Your task to perform on an android device: Play the last video I watched on Youtube Image 0: 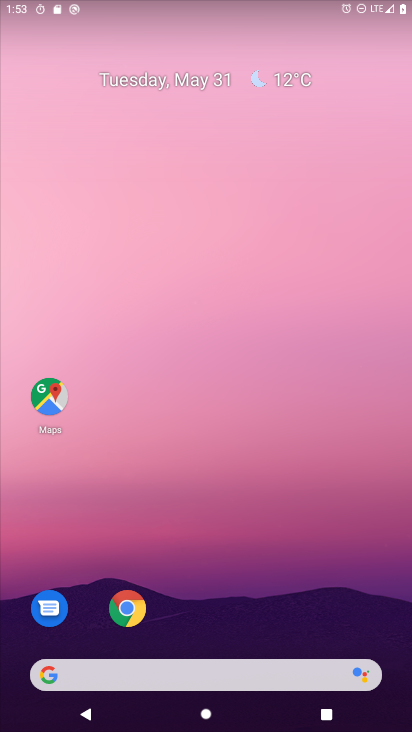
Step 0: drag from (279, 645) to (276, 3)
Your task to perform on an android device: Play the last video I watched on Youtube Image 1: 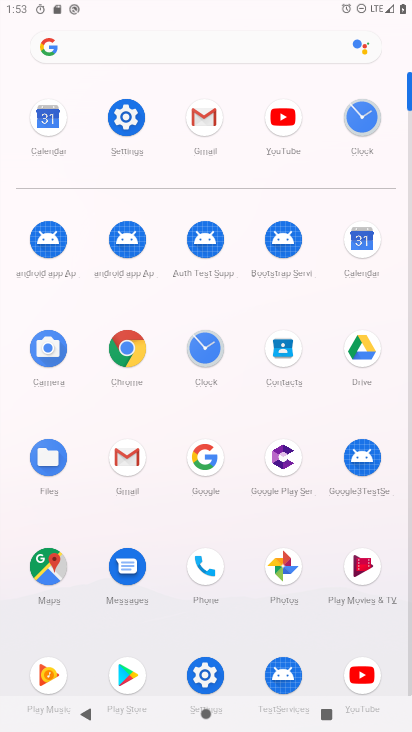
Step 1: click (364, 673)
Your task to perform on an android device: Play the last video I watched on Youtube Image 2: 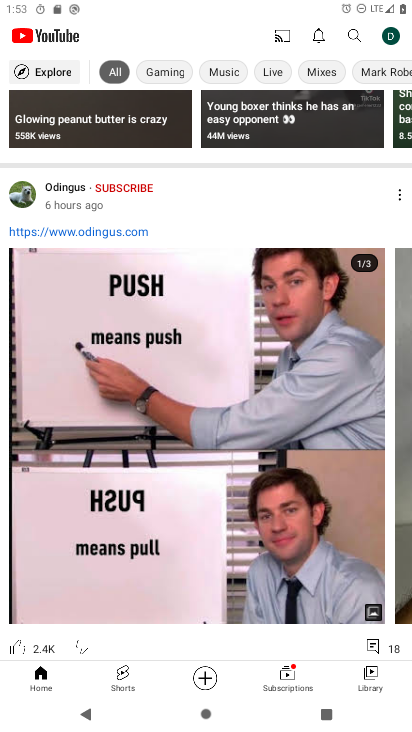
Step 2: click (393, 690)
Your task to perform on an android device: Play the last video I watched on Youtube Image 3: 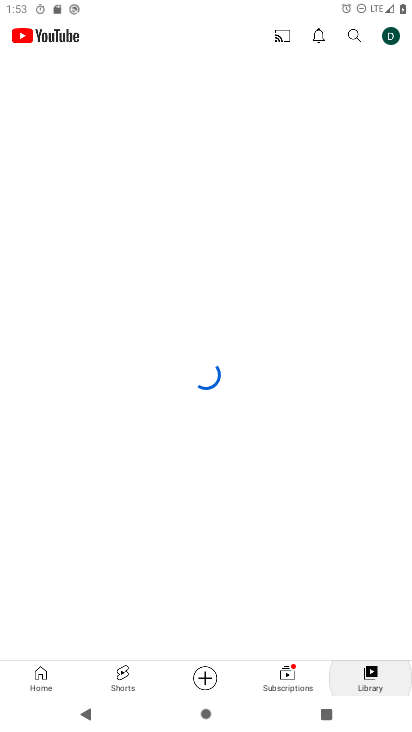
Step 3: click (371, 686)
Your task to perform on an android device: Play the last video I watched on Youtube Image 4: 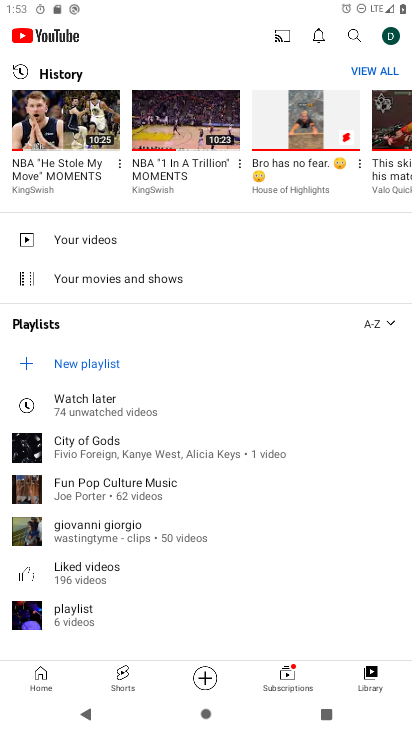
Step 4: click (56, 126)
Your task to perform on an android device: Play the last video I watched on Youtube Image 5: 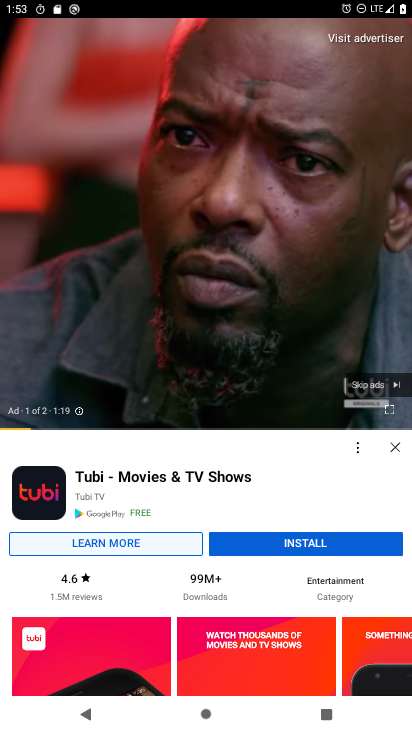
Step 5: click (366, 378)
Your task to perform on an android device: Play the last video I watched on Youtube Image 6: 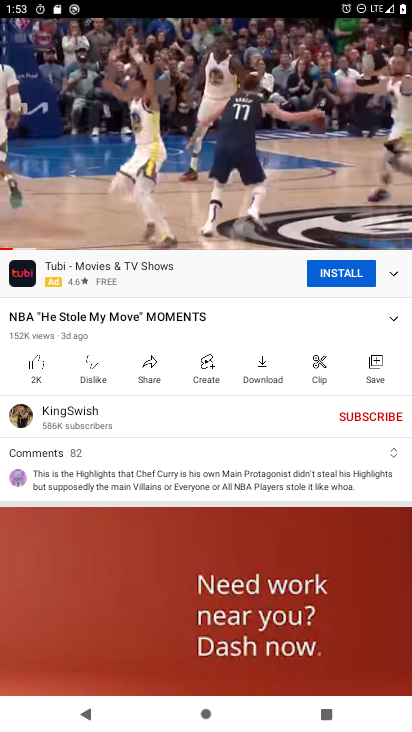
Step 6: click (192, 130)
Your task to perform on an android device: Play the last video I watched on Youtube Image 7: 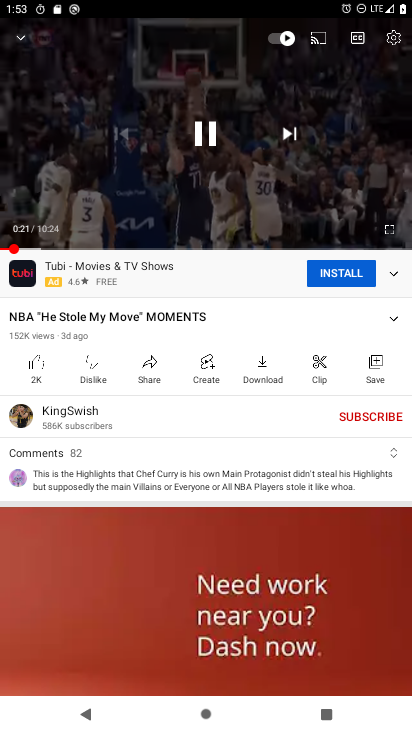
Step 7: click (194, 132)
Your task to perform on an android device: Play the last video I watched on Youtube Image 8: 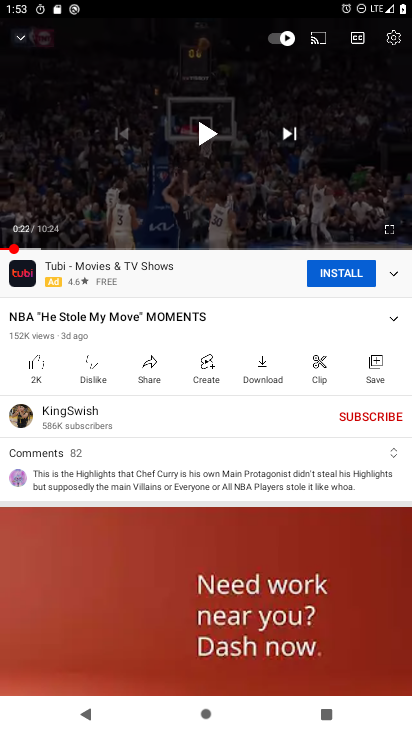
Step 8: task complete